Your task to perform on an android device: delete browsing data in the chrome app Image 0: 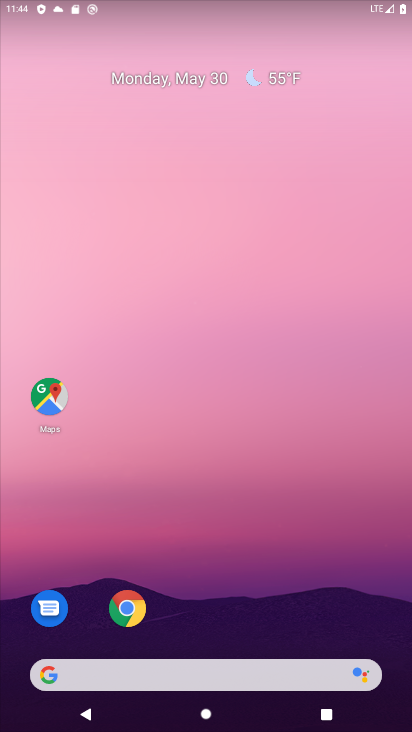
Step 0: click (129, 613)
Your task to perform on an android device: delete browsing data in the chrome app Image 1: 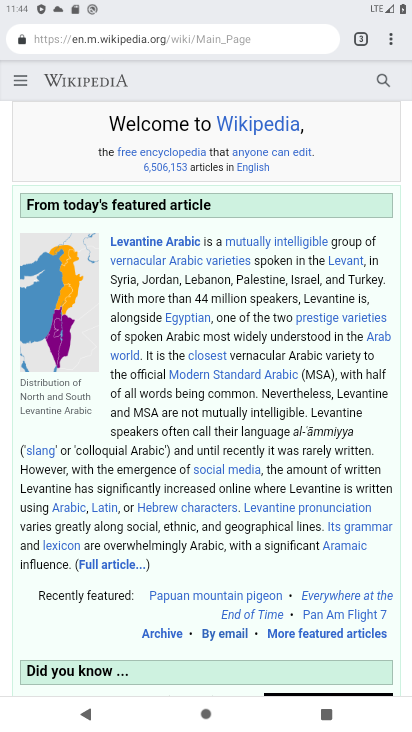
Step 1: click (390, 38)
Your task to perform on an android device: delete browsing data in the chrome app Image 2: 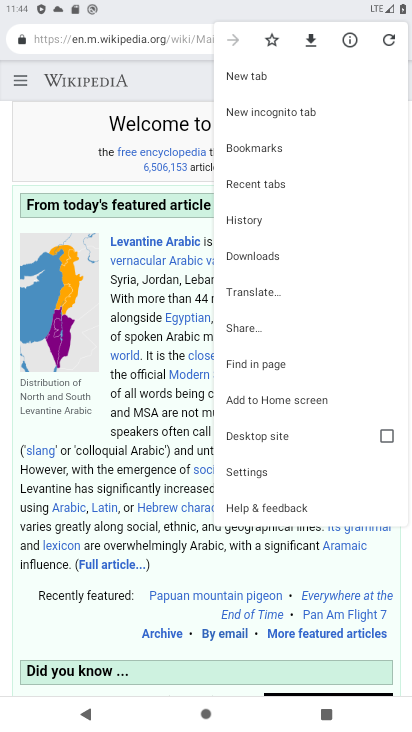
Step 2: click (253, 472)
Your task to perform on an android device: delete browsing data in the chrome app Image 3: 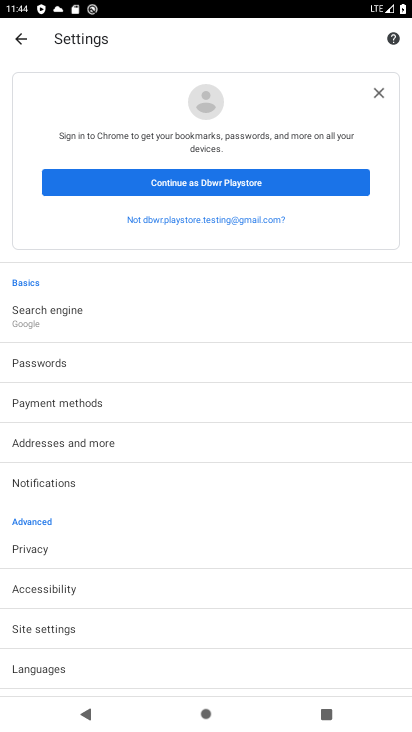
Step 3: click (36, 546)
Your task to perform on an android device: delete browsing data in the chrome app Image 4: 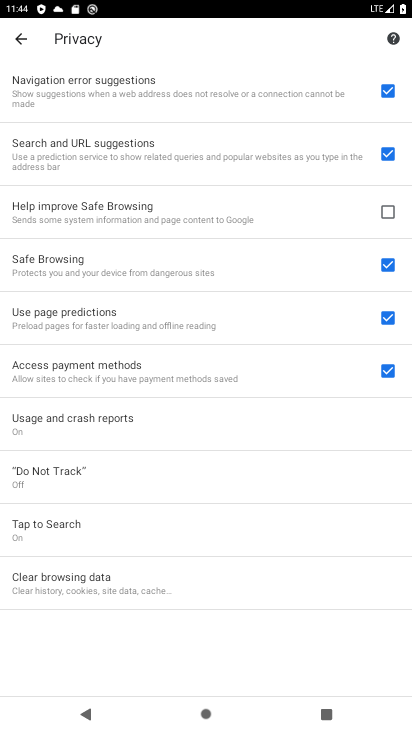
Step 4: click (45, 579)
Your task to perform on an android device: delete browsing data in the chrome app Image 5: 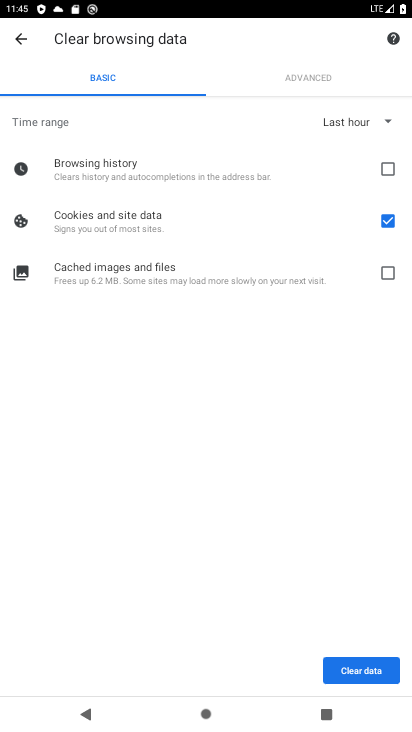
Step 5: click (389, 222)
Your task to perform on an android device: delete browsing data in the chrome app Image 6: 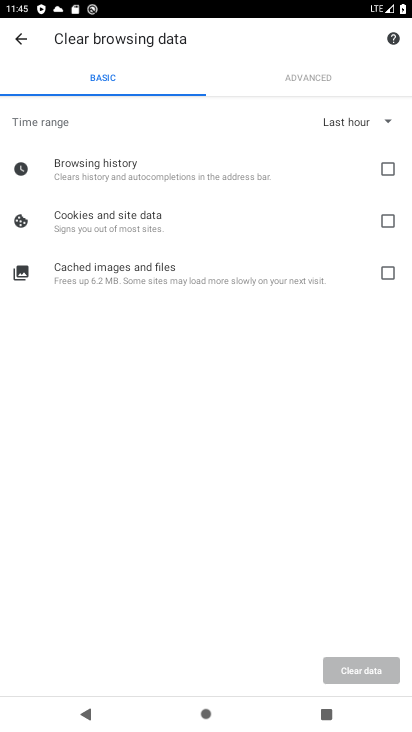
Step 6: click (386, 170)
Your task to perform on an android device: delete browsing data in the chrome app Image 7: 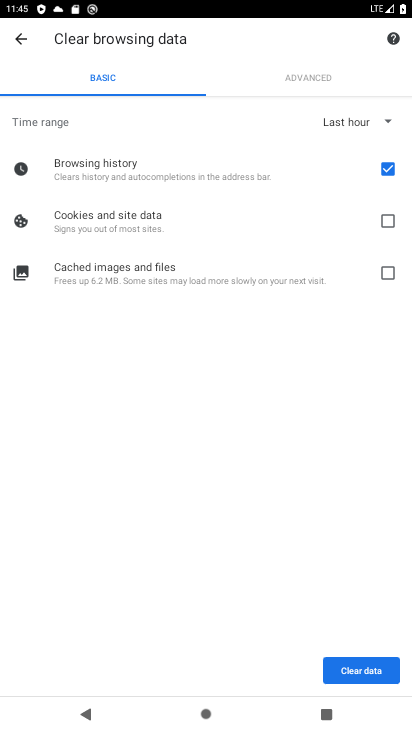
Step 7: click (365, 671)
Your task to perform on an android device: delete browsing data in the chrome app Image 8: 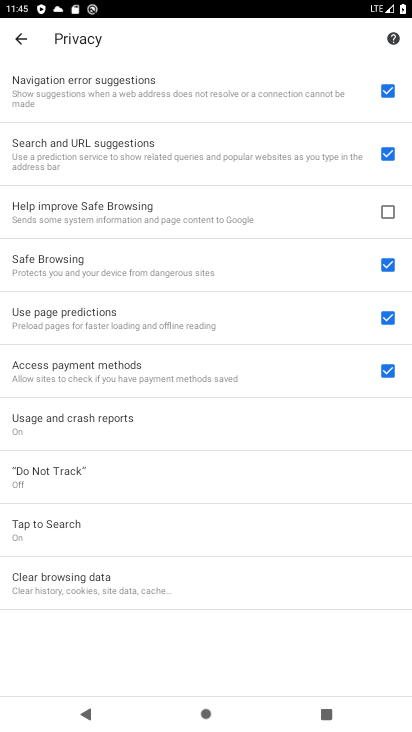
Step 8: task complete